Your task to perform on an android device: turn on the 24-hour format for clock Image 0: 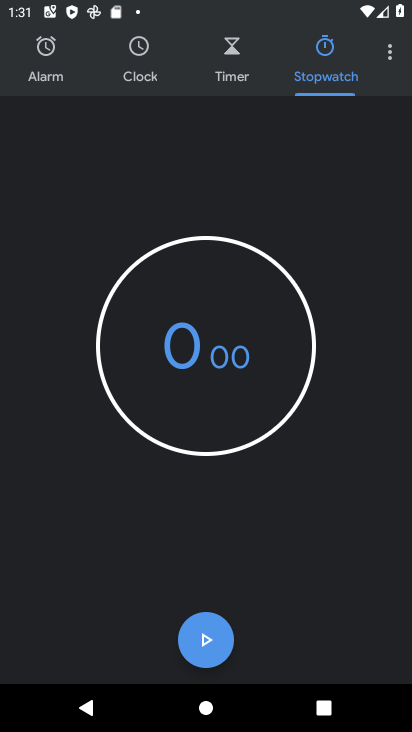
Step 0: click (389, 48)
Your task to perform on an android device: turn on the 24-hour format for clock Image 1: 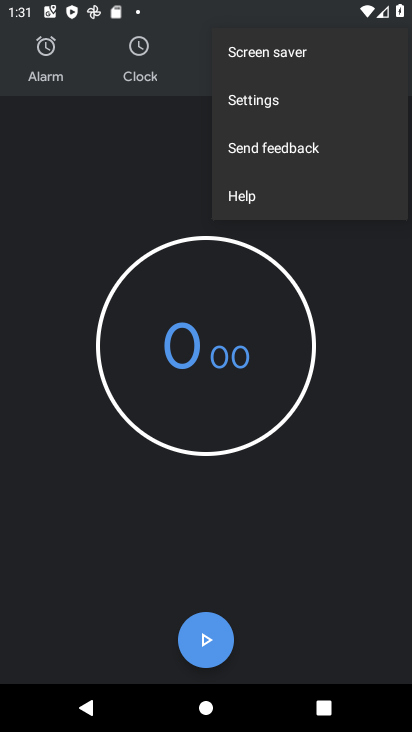
Step 1: click (243, 92)
Your task to perform on an android device: turn on the 24-hour format for clock Image 2: 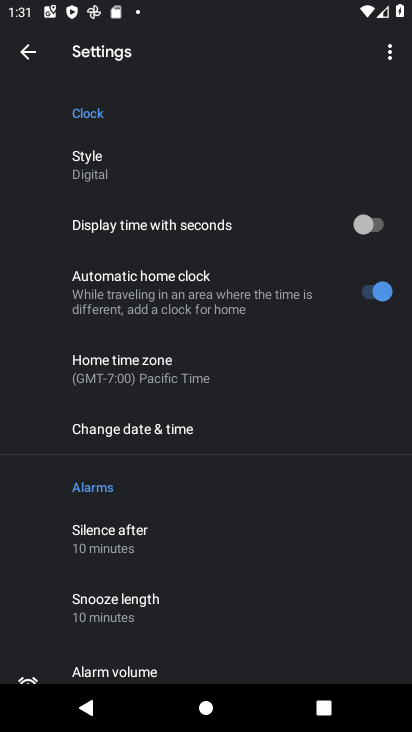
Step 2: click (154, 440)
Your task to perform on an android device: turn on the 24-hour format for clock Image 3: 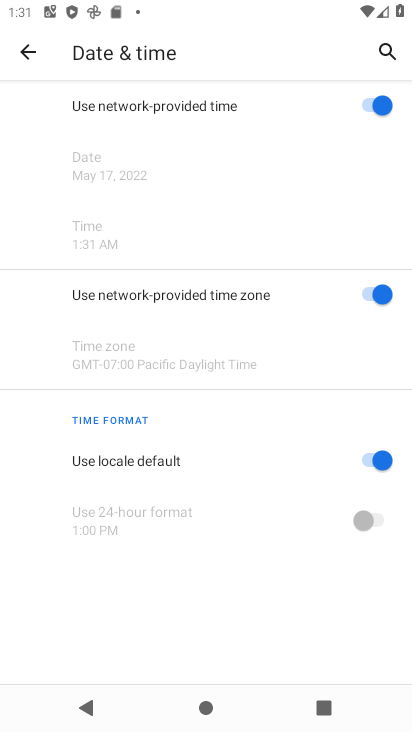
Step 3: click (362, 457)
Your task to perform on an android device: turn on the 24-hour format for clock Image 4: 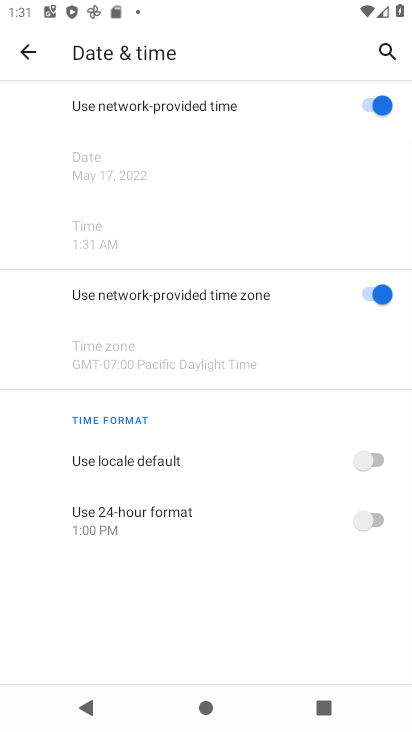
Step 4: click (380, 518)
Your task to perform on an android device: turn on the 24-hour format for clock Image 5: 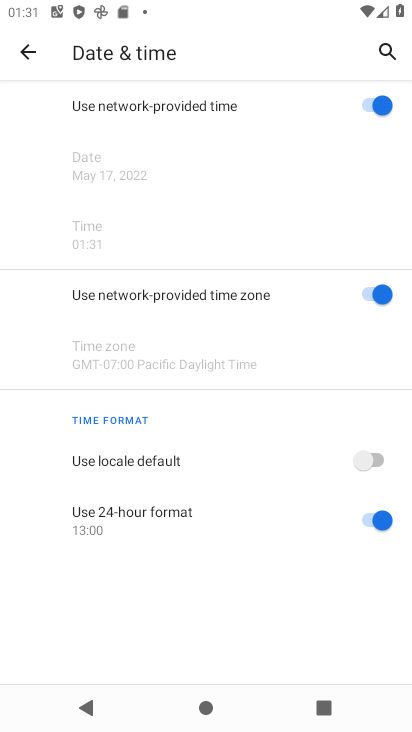
Step 5: task complete